Your task to perform on an android device: check storage Image 0: 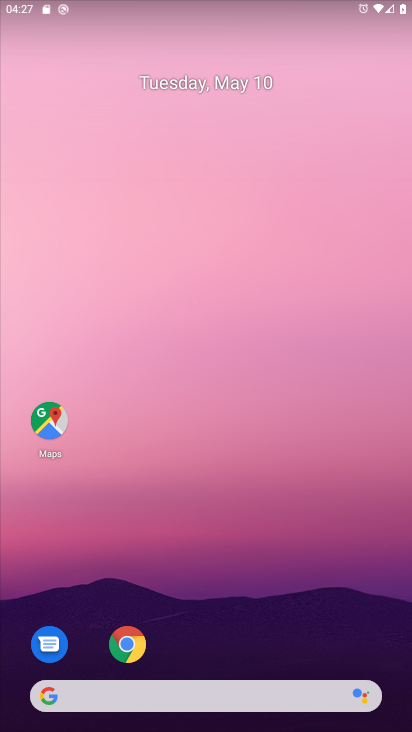
Step 0: press home button
Your task to perform on an android device: check storage Image 1: 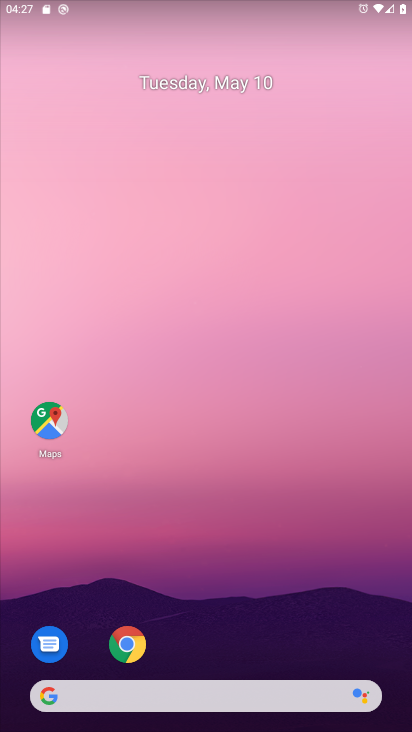
Step 1: drag from (235, 645) to (223, 113)
Your task to perform on an android device: check storage Image 2: 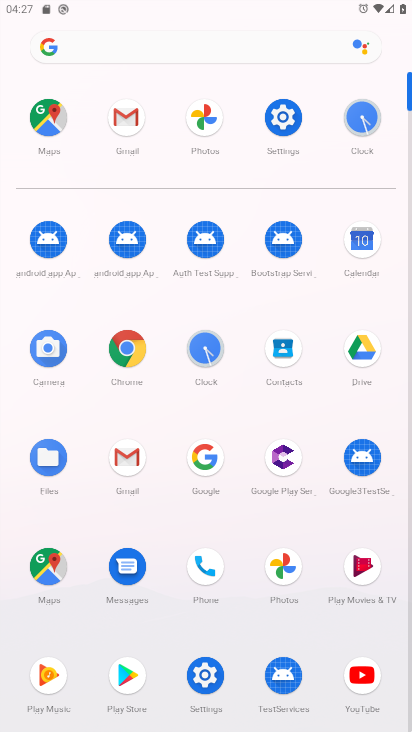
Step 2: click (276, 117)
Your task to perform on an android device: check storage Image 3: 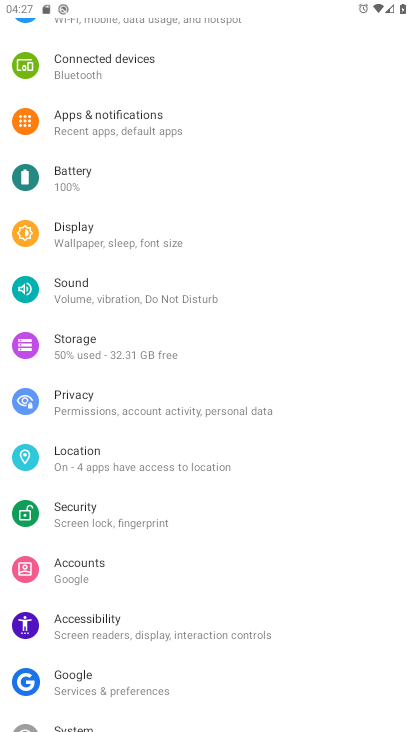
Step 3: click (104, 345)
Your task to perform on an android device: check storage Image 4: 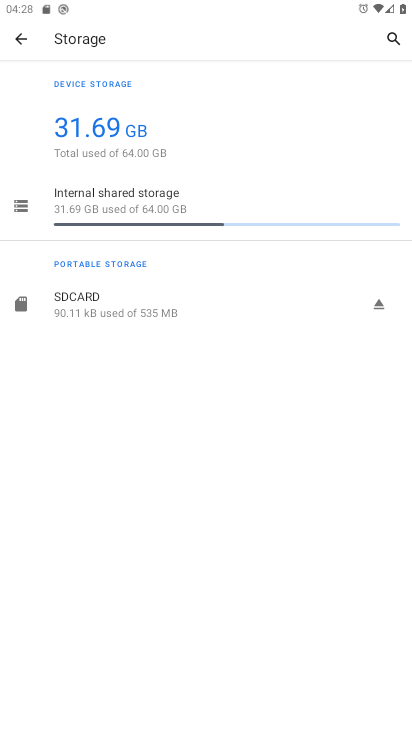
Step 4: task complete